Your task to perform on an android device: all mails in gmail Image 0: 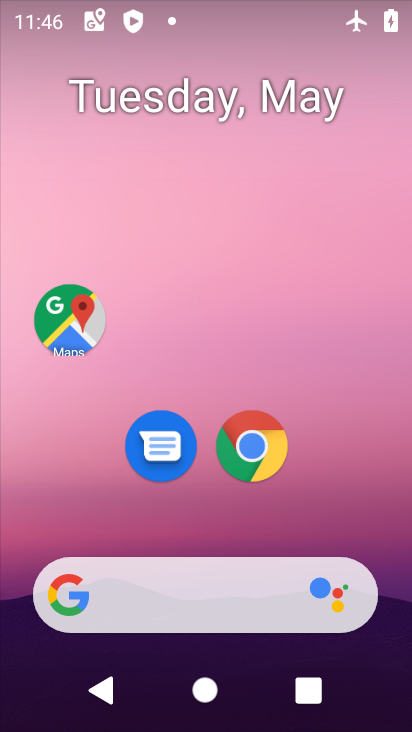
Step 0: drag from (250, 718) to (247, 152)
Your task to perform on an android device: all mails in gmail Image 1: 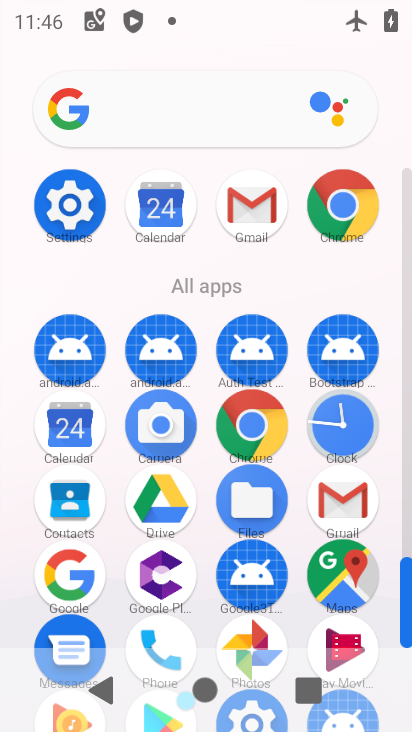
Step 1: click (327, 494)
Your task to perform on an android device: all mails in gmail Image 2: 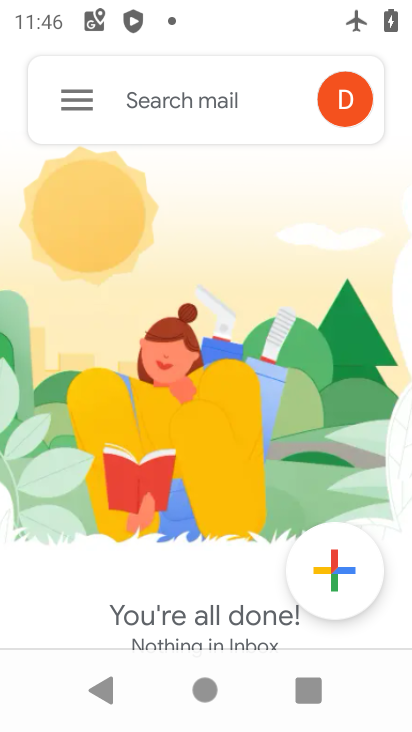
Step 2: click (74, 97)
Your task to perform on an android device: all mails in gmail Image 3: 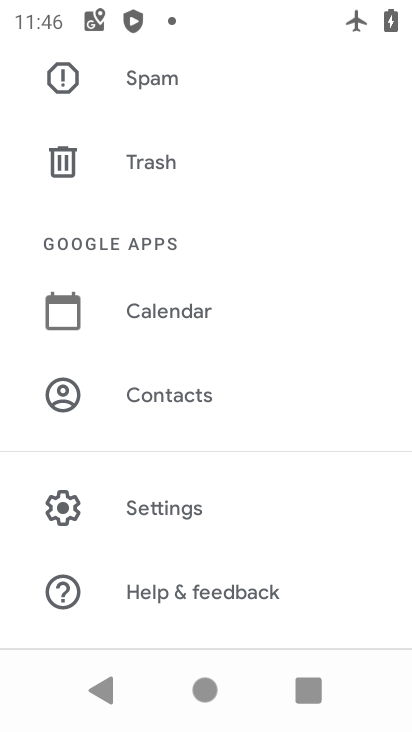
Step 3: drag from (230, 201) to (265, 543)
Your task to perform on an android device: all mails in gmail Image 4: 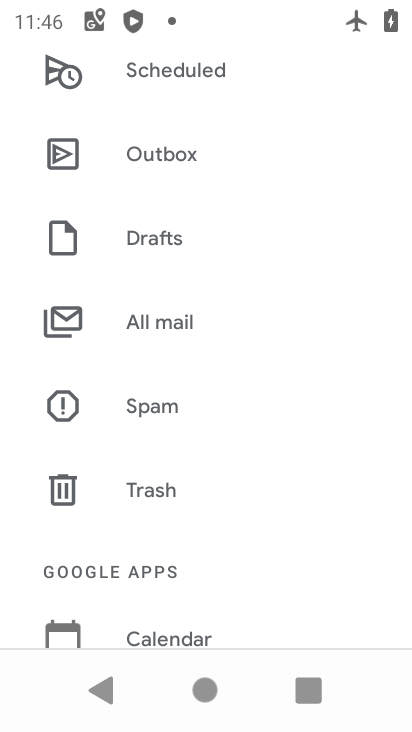
Step 4: click (160, 318)
Your task to perform on an android device: all mails in gmail Image 5: 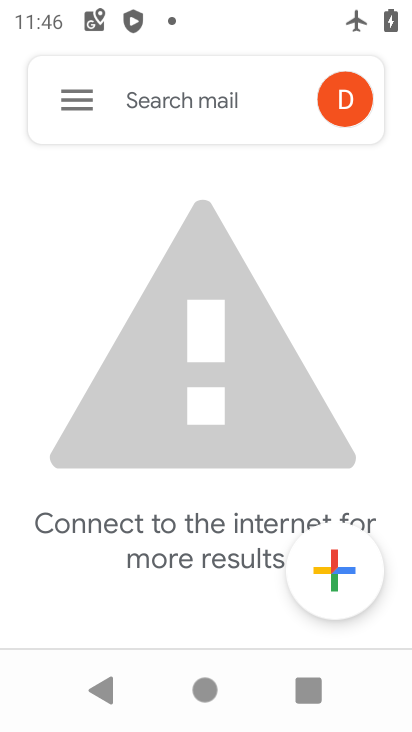
Step 5: task complete